Your task to perform on an android device: Go to calendar. Show me events next week Image 0: 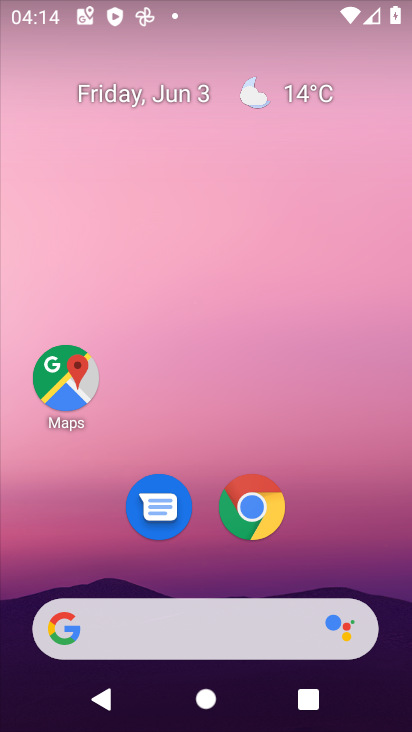
Step 0: press home button
Your task to perform on an android device: Go to calendar. Show me events next week Image 1: 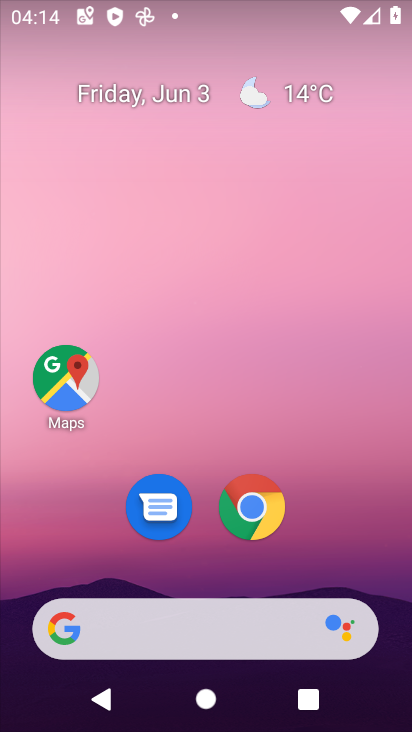
Step 1: drag from (206, 551) to (216, 113)
Your task to perform on an android device: Go to calendar. Show me events next week Image 2: 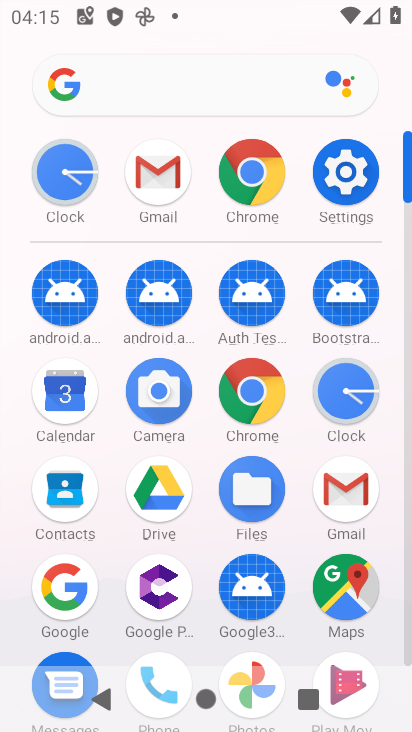
Step 2: click (55, 395)
Your task to perform on an android device: Go to calendar. Show me events next week Image 3: 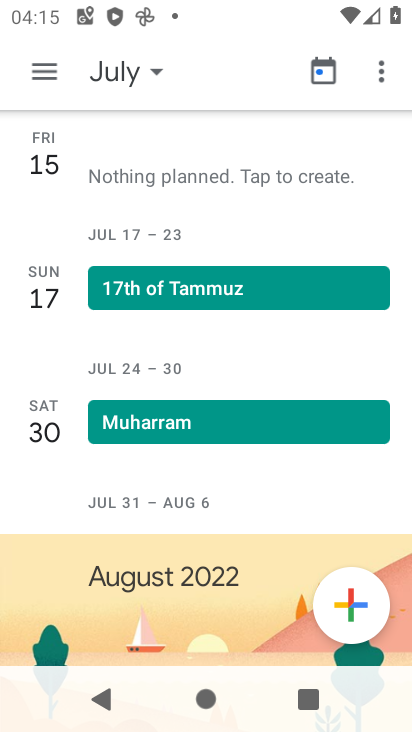
Step 3: task complete